Your task to perform on an android device: delete location history Image 0: 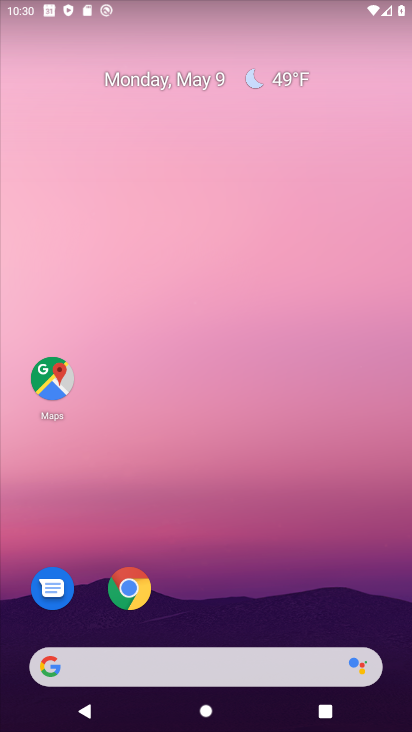
Step 0: drag from (235, 723) to (235, 111)
Your task to perform on an android device: delete location history Image 1: 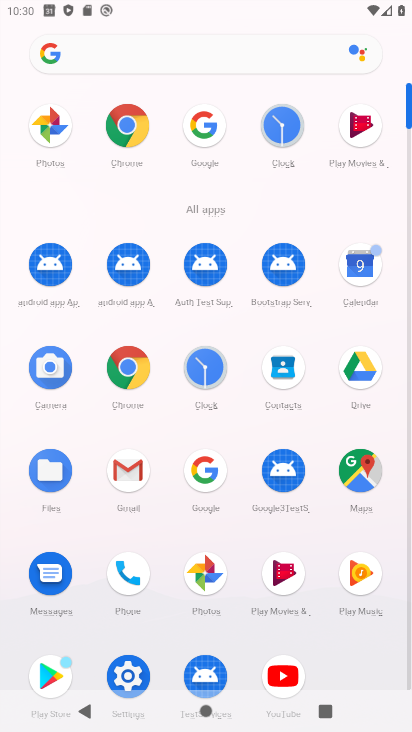
Step 1: click (136, 670)
Your task to perform on an android device: delete location history Image 2: 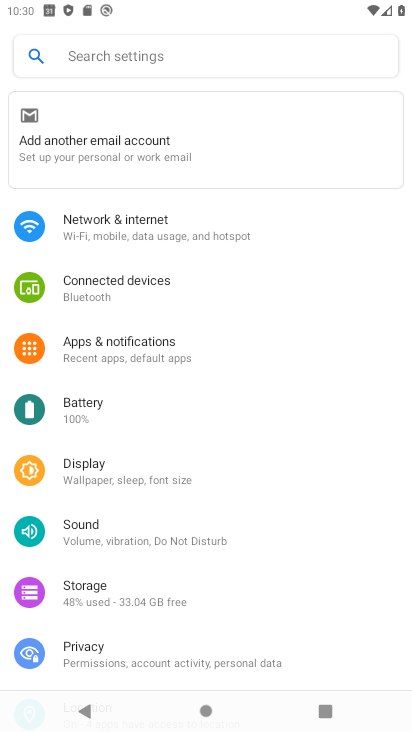
Step 2: drag from (136, 571) to (136, 353)
Your task to perform on an android device: delete location history Image 3: 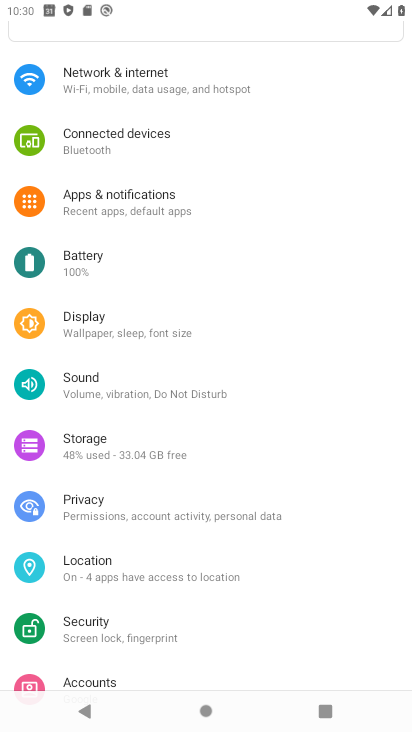
Step 3: click (87, 578)
Your task to perform on an android device: delete location history Image 4: 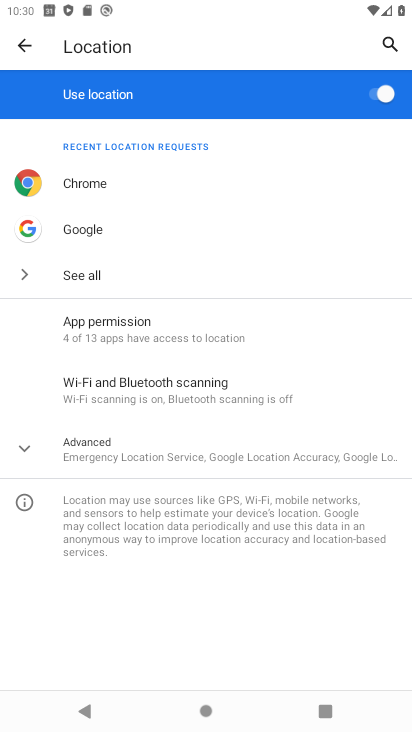
Step 4: click (126, 449)
Your task to perform on an android device: delete location history Image 5: 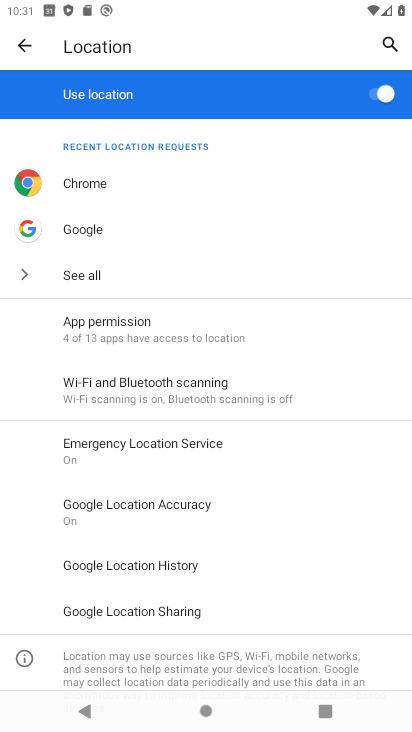
Step 5: click (165, 565)
Your task to perform on an android device: delete location history Image 6: 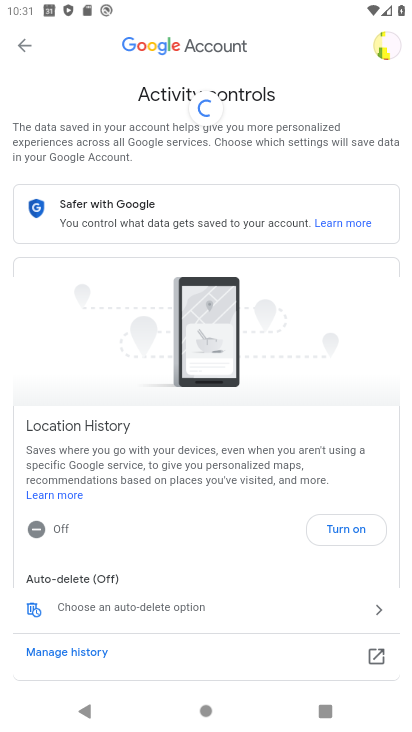
Step 6: drag from (139, 655) to (139, 300)
Your task to perform on an android device: delete location history Image 7: 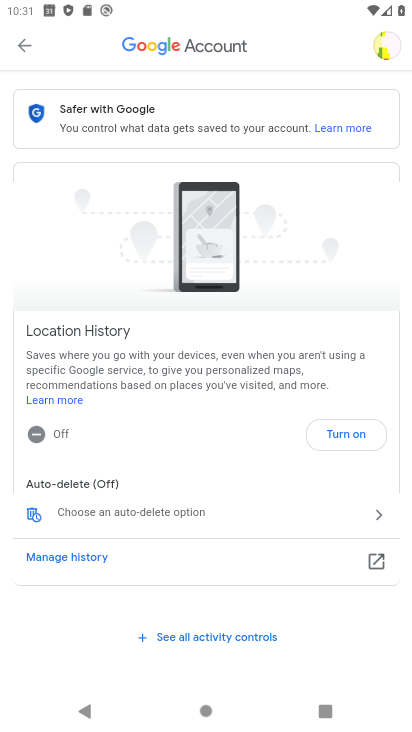
Step 7: click (37, 513)
Your task to perform on an android device: delete location history Image 8: 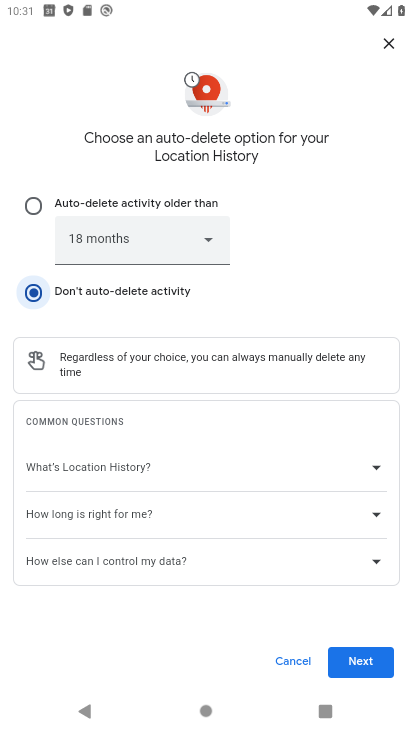
Step 8: click (362, 659)
Your task to perform on an android device: delete location history Image 9: 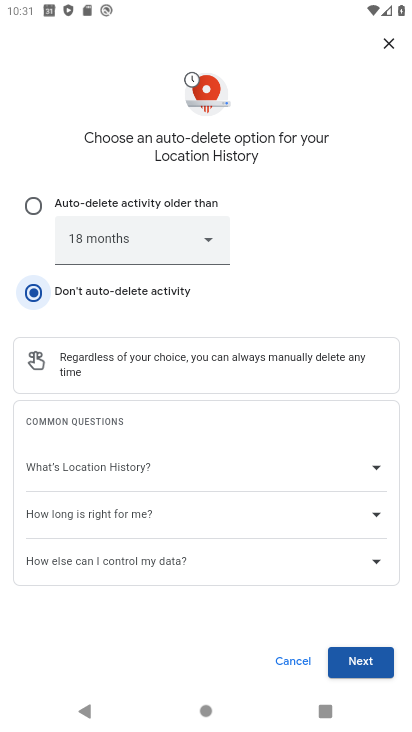
Step 9: click (364, 657)
Your task to perform on an android device: delete location history Image 10: 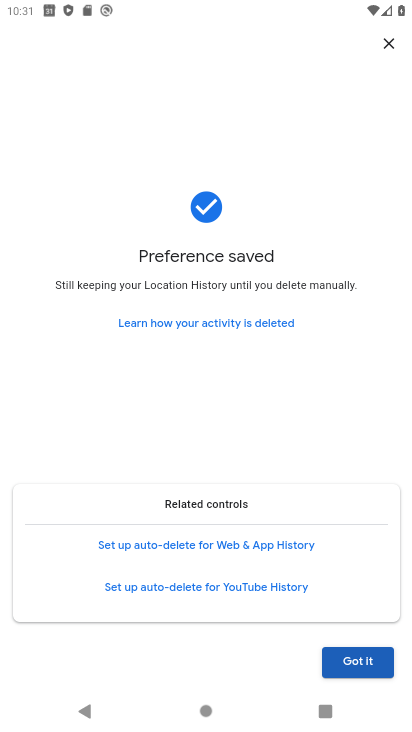
Step 10: task complete